Your task to perform on an android device: turn notification dots on Image 0: 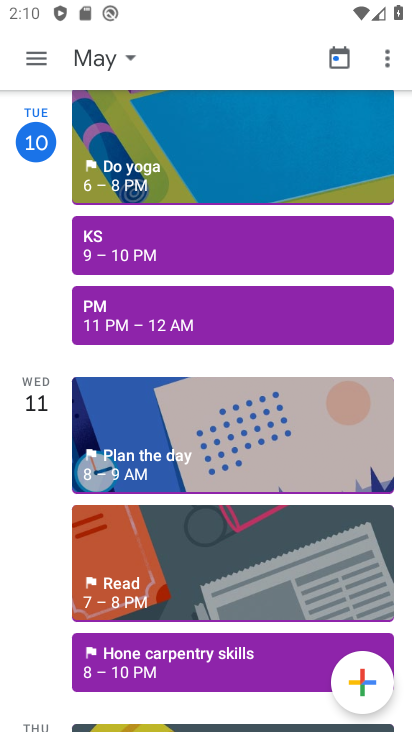
Step 0: press home button
Your task to perform on an android device: turn notification dots on Image 1: 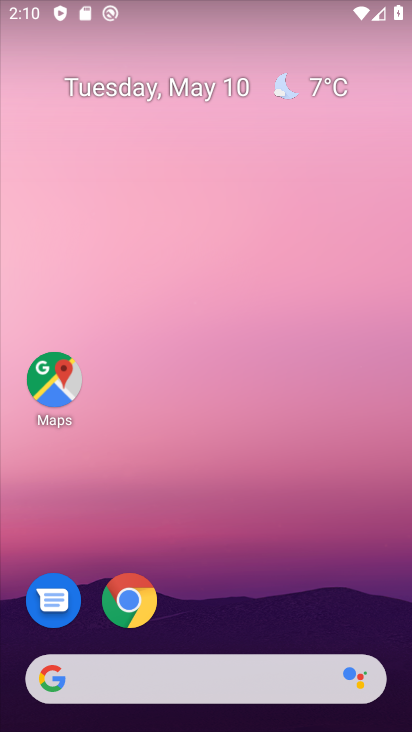
Step 1: drag from (178, 651) to (208, 19)
Your task to perform on an android device: turn notification dots on Image 2: 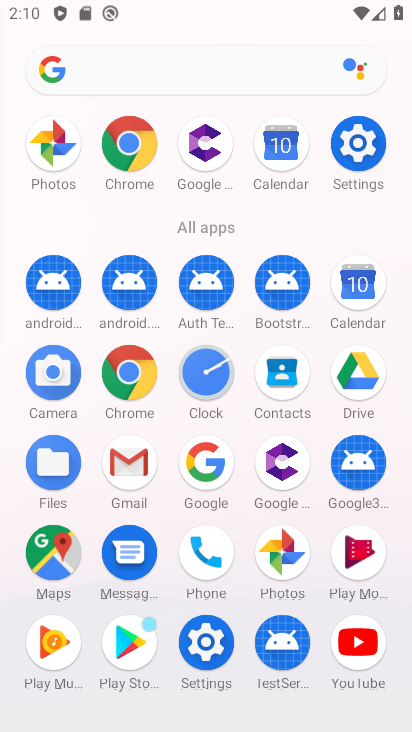
Step 2: click (363, 144)
Your task to perform on an android device: turn notification dots on Image 3: 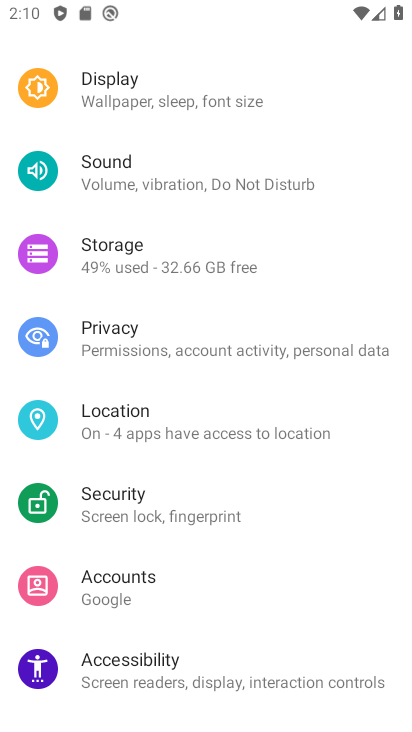
Step 3: drag from (124, 146) to (169, 504)
Your task to perform on an android device: turn notification dots on Image 4: 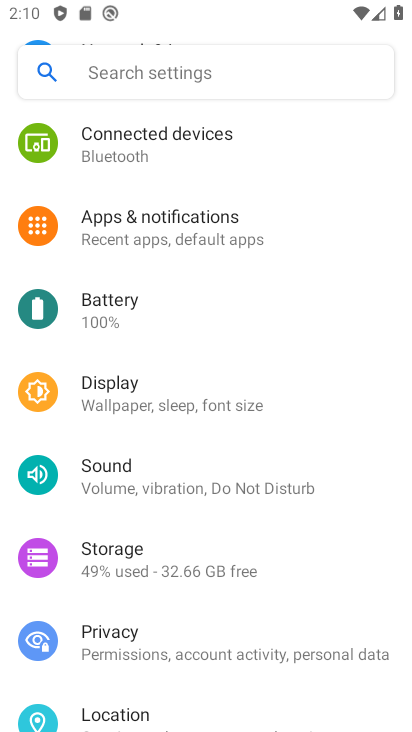
Step 4: click (168, 217)
Your task to perform on an android device: turn notification dots on Image 5: 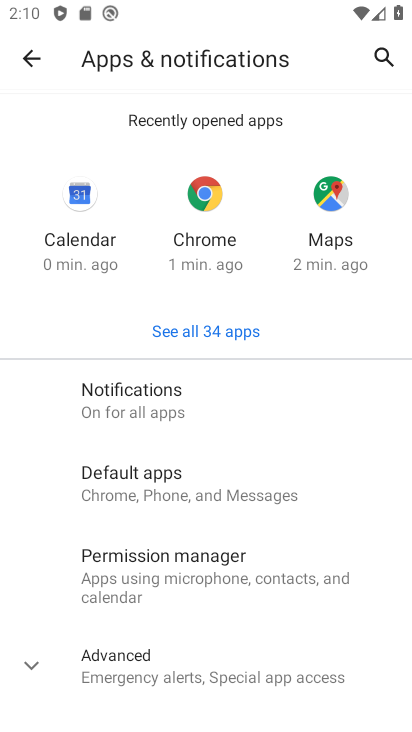
Step 5: click (176, 397)
Your task to perform on an android device: turn notification dots on Image 6: 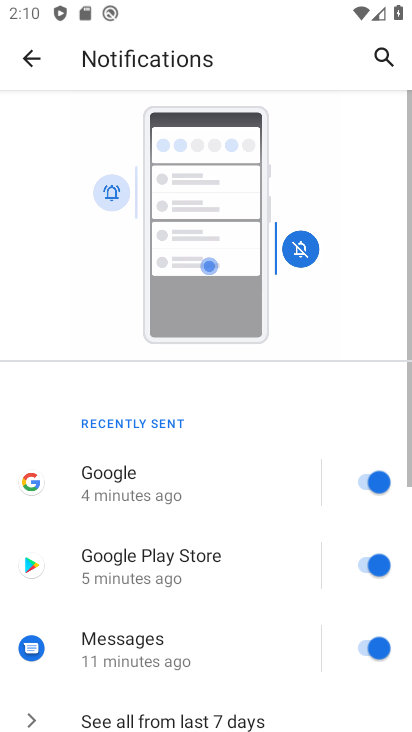
Step 6: drag from (226, 632) to (267, 38)
Your task to perform on an android device: turn notification dots on Image 7: 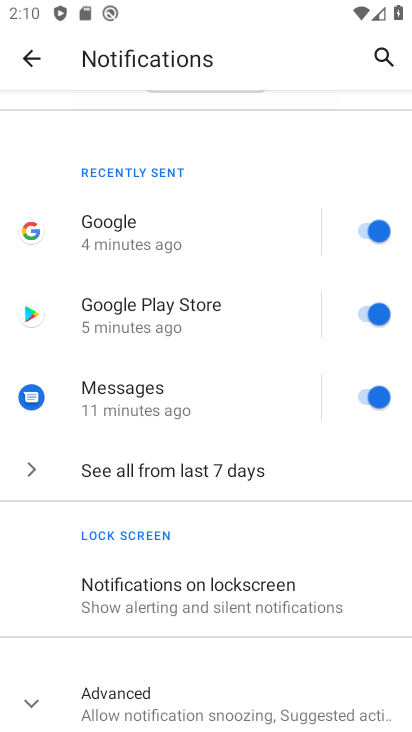
Step 7: drag from (166, 511) to (171, 361)
Your task to perform on an android device: turn notification dots on Image 8: 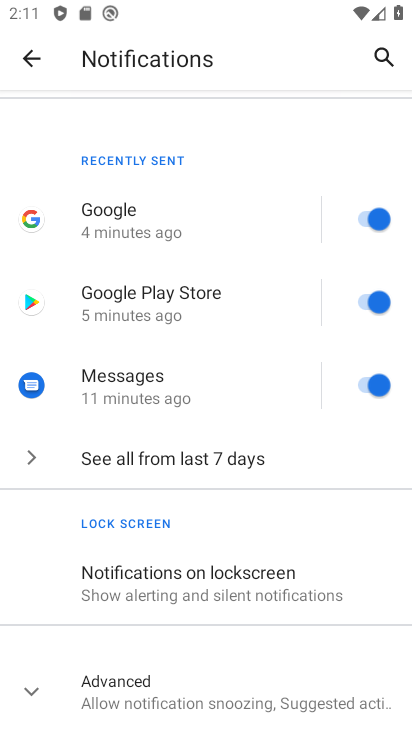
Step 8: drag from (135, 689) to (148, 302)
Your task to perform on an android device: turn notification dots on Image 9: 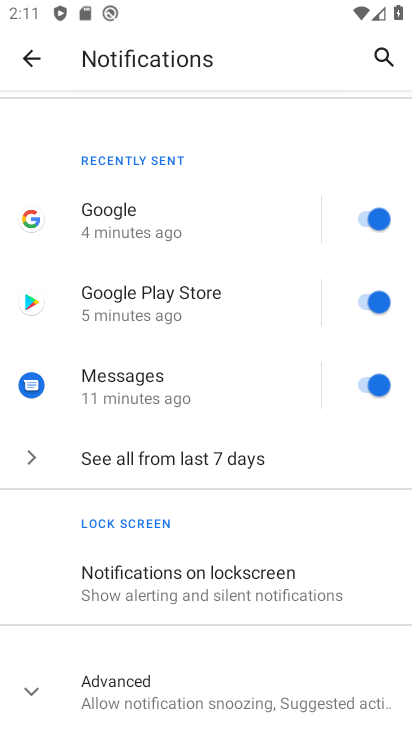
Step 9: click (148, 689)
Your task to perform on an android device: turn notification dots on Image 10: 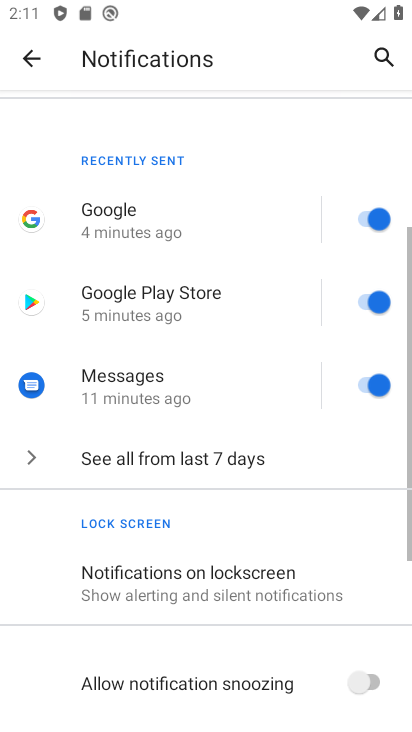
Step 10: task complete